Your task to perform on an android device: toggle priority inbox in the gmail app Image 0: 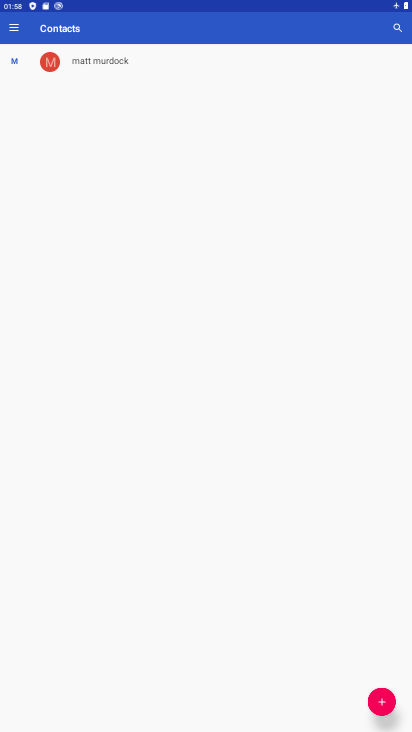
Step 0: press home button
Your task to perform on an android device: toggle priority inbox in the gmail app Image 1: 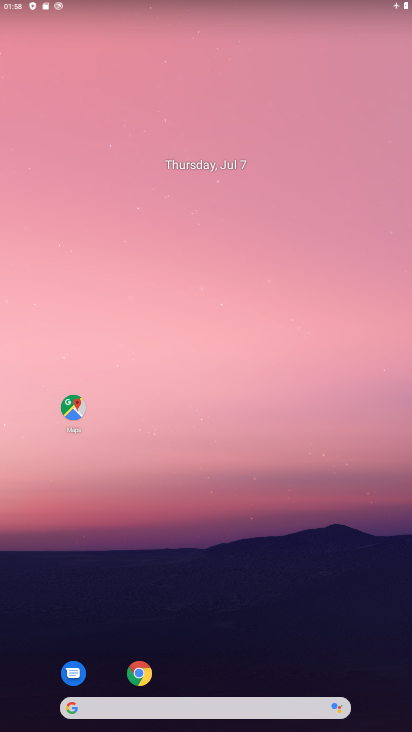
Step 1: drag from (230, 659) to (234, 108)
Your task to perform on an android device: toggle priority inbox in the gmail app Image 2: 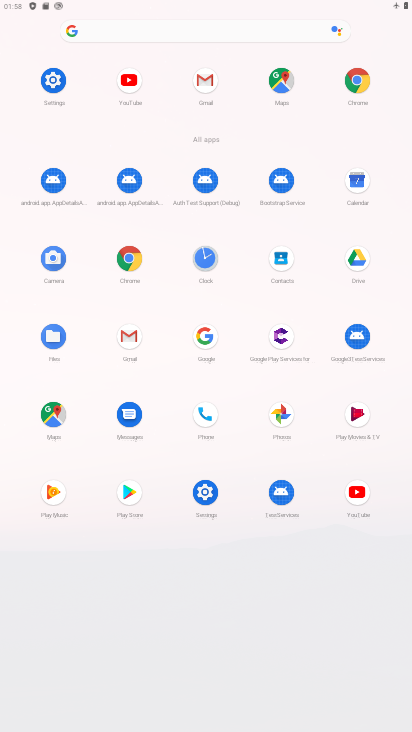
Step 2: click (198, 89)
Your task to perform on an android device: toggle priority inbox in the gmail app Image 3: 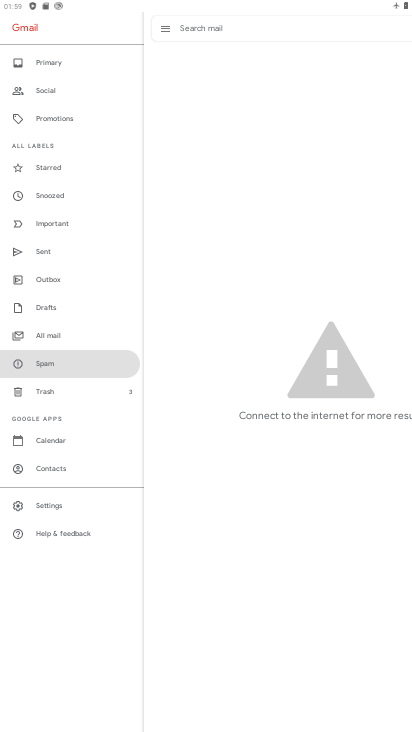
Step 3: click (62, 503)
Your task to perform on an android device: toggle priority inbox in the gmail app Image 4: 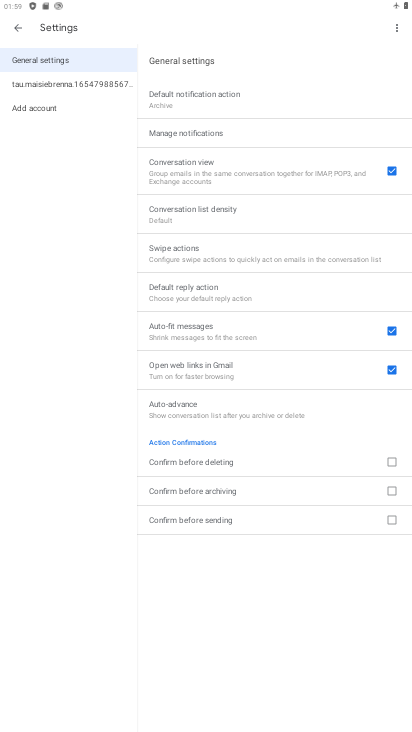
Step 4: click (66, 86)
Your task to perform on an android device: toggle priority inbox in the gmail app Image 5: 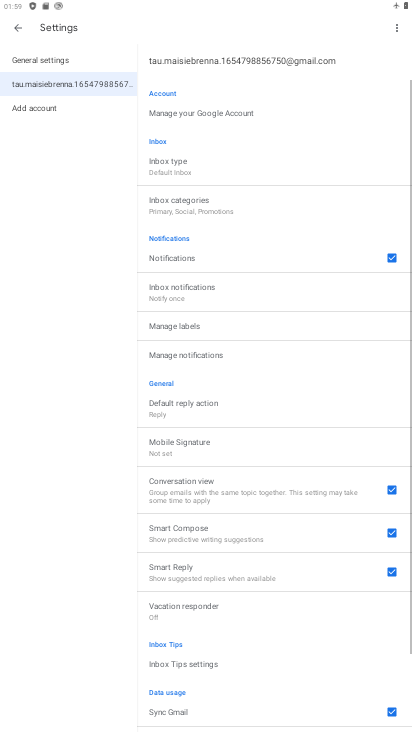
Step 5: drag from (236, 456) to (242, 299)
Your task to perform on an android device: toggle priority inbox in the gmail app Image 6: 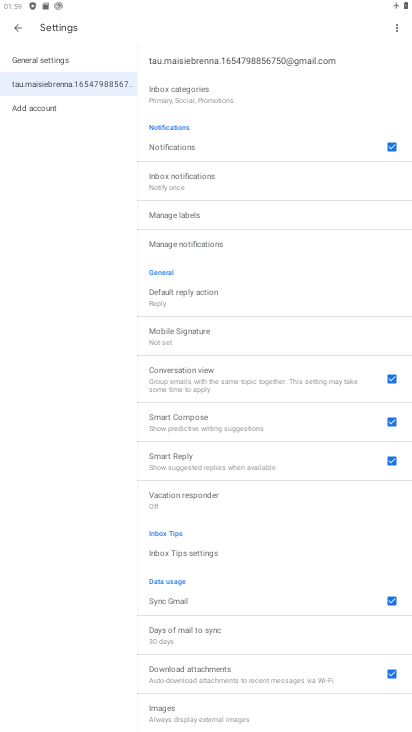
Step 6: drag from (242, 489) to (260, 299)
Your task to perform on an android device: toggle priority inbox in the gmail app Image 7: 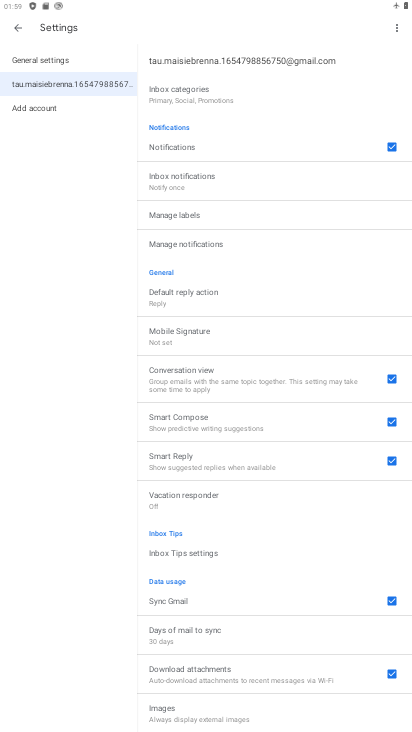
Step 7: drag from (218, 156) to (213, 441)
Your task to perform on an android device: toggle priority inbox in the gmail app Image 8: 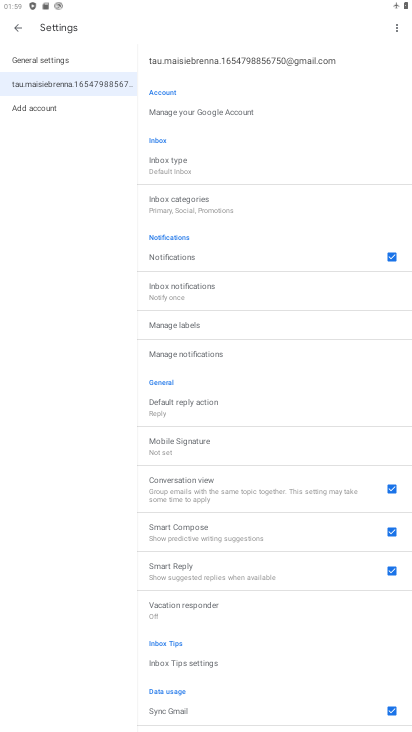
Step 8: click (193, 173)
Your task to perform on an android device: toggle priority inbox in the gmail app Image 9: 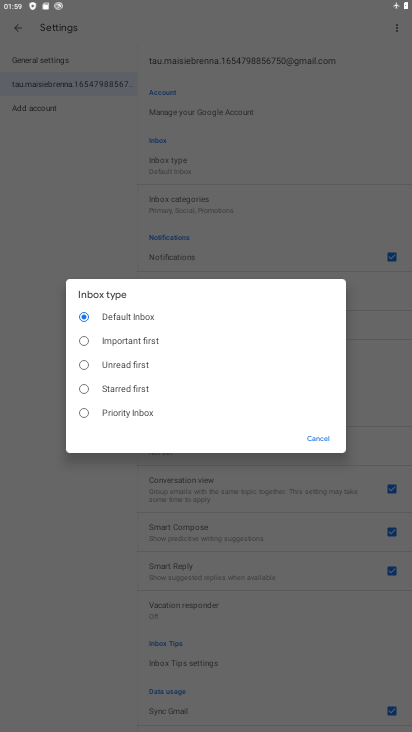
Step 9: click (86, 412)
Your task to perform on an android device: toggle priority inbox in the gmail app Image 10: 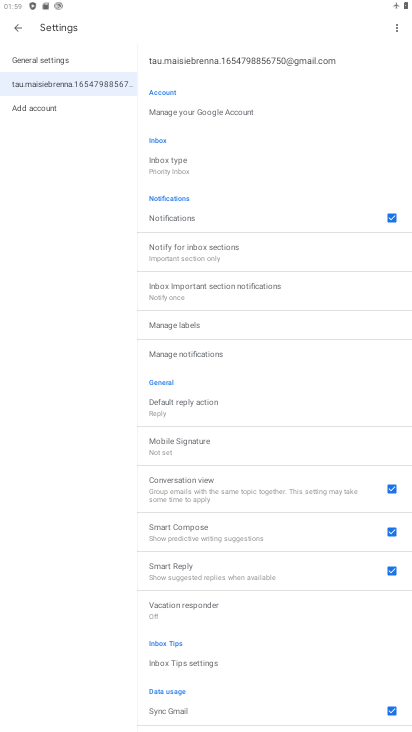
Step 10: task complete